Your task to perform on an android device: Open Google Maps Image 0: 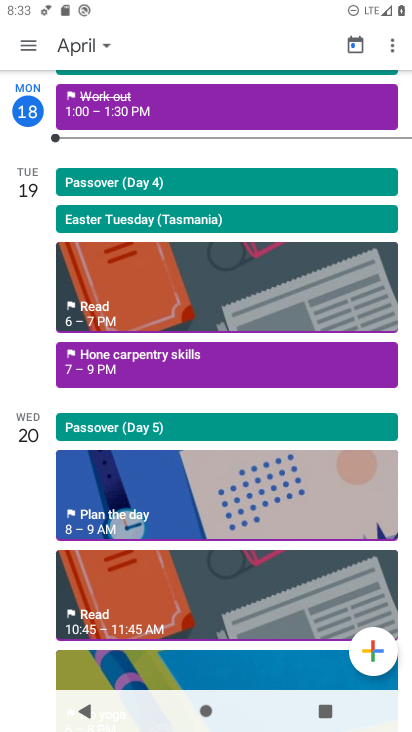
Step 0: press home button
Your task to perform on an android device: Open Google Maps Image 1: 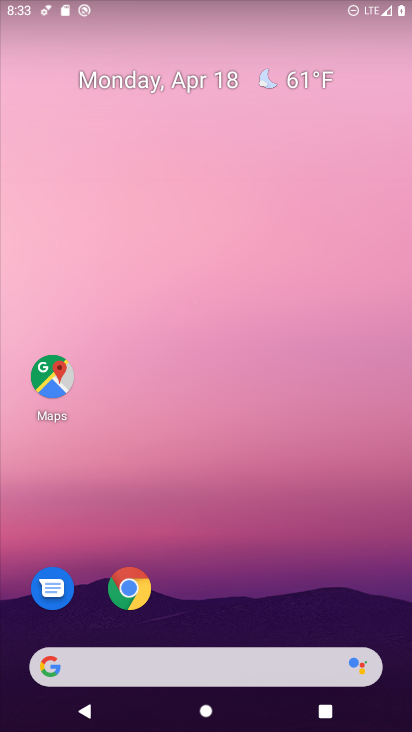
Step 1: click (48, 374)
Your task to perform on an android device: Open Google Maps Image 2: 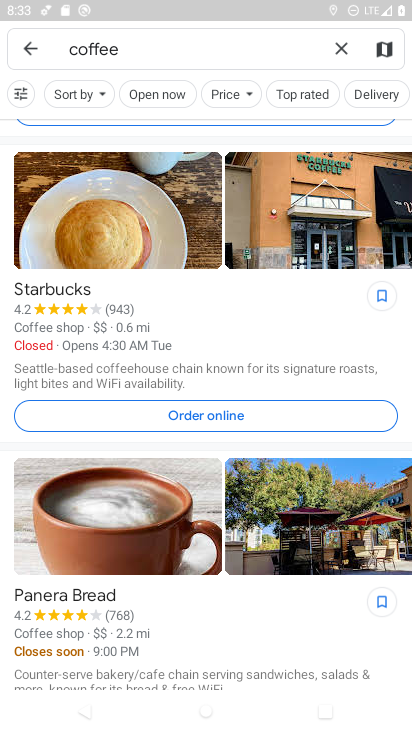
Step 2: task complete